Your task to perform on an android device: Open Chrome and go to settings Image 0: 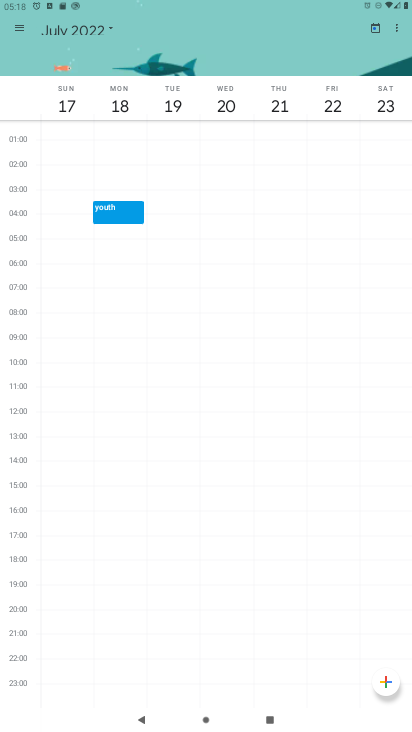
Step 0: press home button
Your task to perform on an android device: Open Chrome and go to settings Image 1: 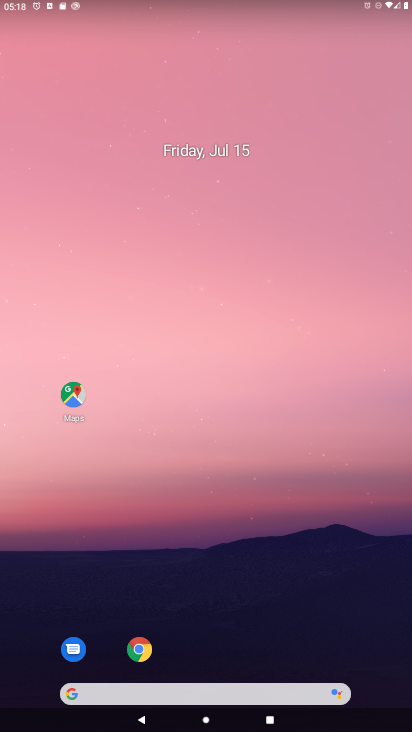
Step 1: click (143, 650)
Your task to perform on an android device: Open Chrome and go to settings Image 2: 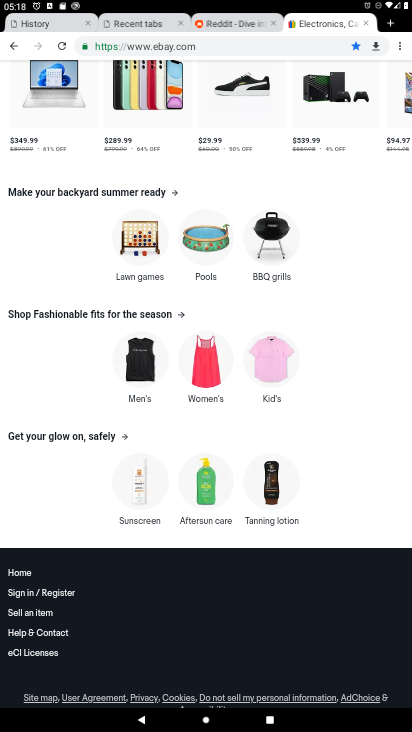
Step 2: click (399, 44)
Your task to perform on an android device: Open Chrome and go to settings Image 3: 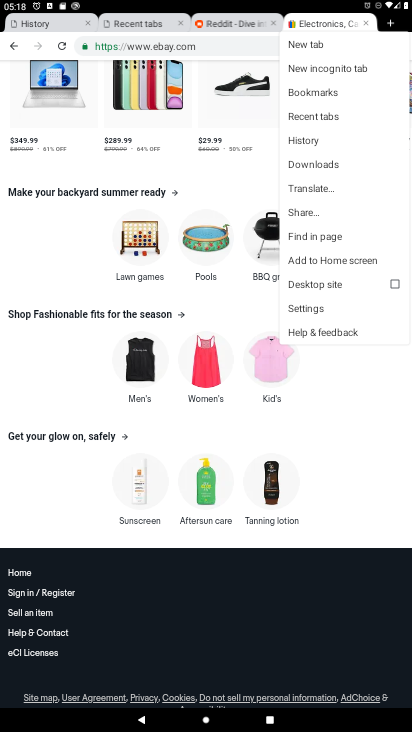
Step 3: click (312, 315)
Your task to perform on an android device: Open Chrome and go to settings Image 4: 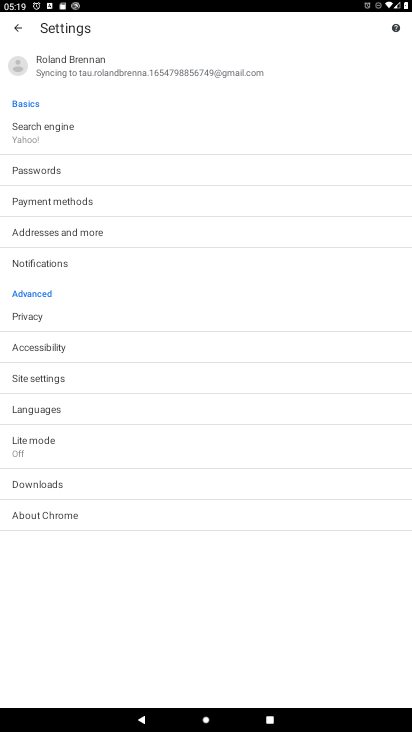
Step 4: task complete